Your task to perform on an android device: toggle pop-ups in chrome Image 0: 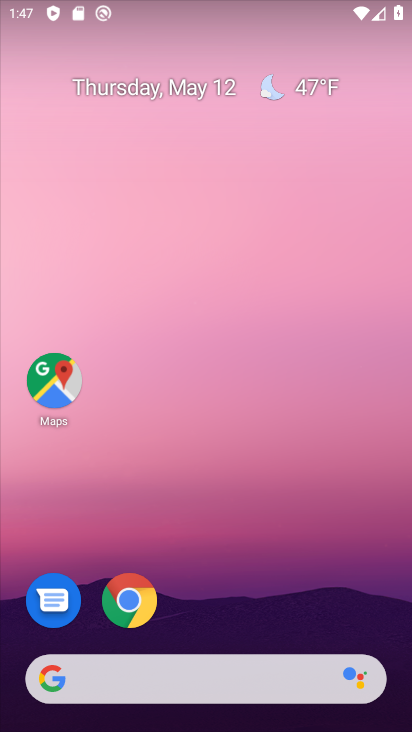
Step 0: click (142, 603)
Your task to perform on an android device: toggle pop-ups in chrome Image 1: 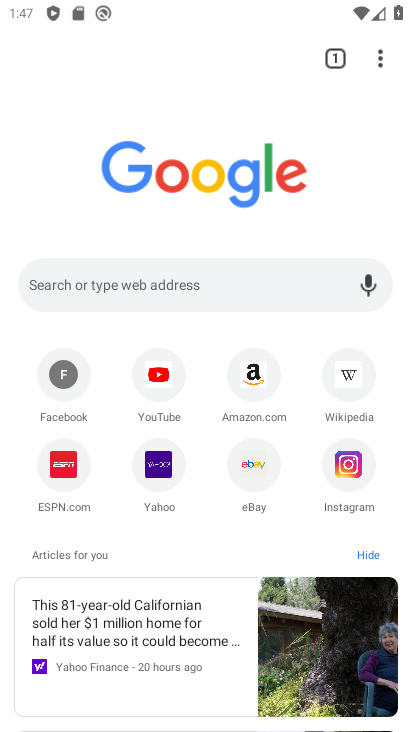
Step 1: click (381, 63)
Your task to perform on an android device: toggle pop-ups in chrome Image 2: 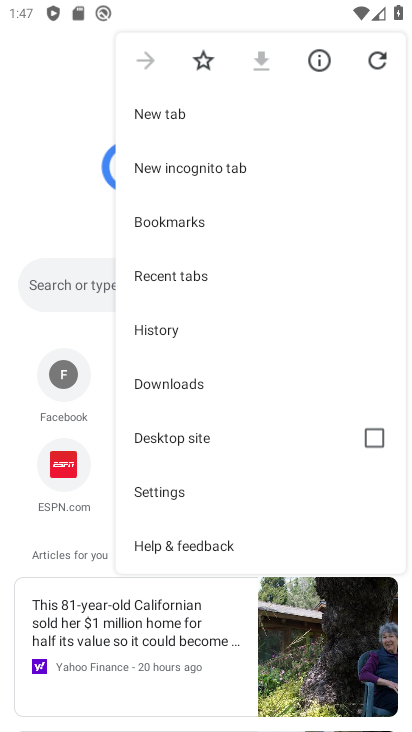
Step 2: click (164, 491)
Your task to perform on an android device: toggle pop-ups in chrome Image 3: 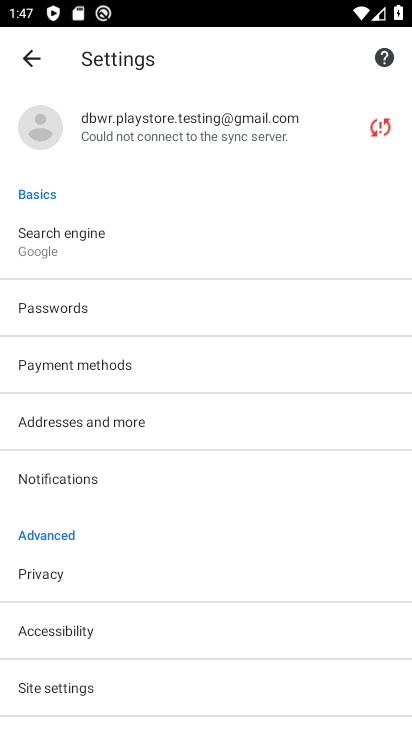
Step 3: drag from (125, 645) to (154, 283)
Your task to perform on an android device: toggle pop-ups in chrome Image 4: 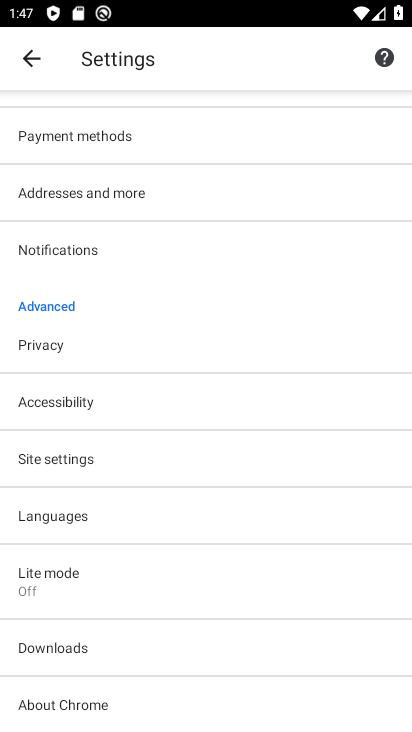
Step 4: click (108, 456)
Your task to perform on an android device: toggle pop-ups in chrome Image 5: 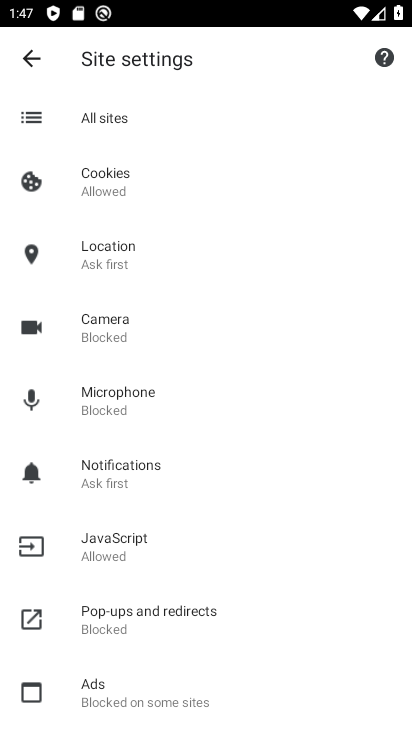
Step 5: click (150, 620)
Your task to perform on an android device: toggle pop-ups in chrome Image 6: 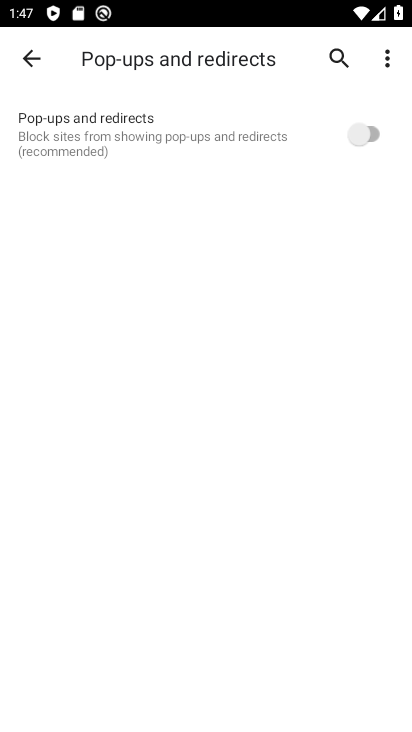
Step 6: click (366, 125)
Your task to perform on an android device: toggle pop-ups in chrome Image 7: 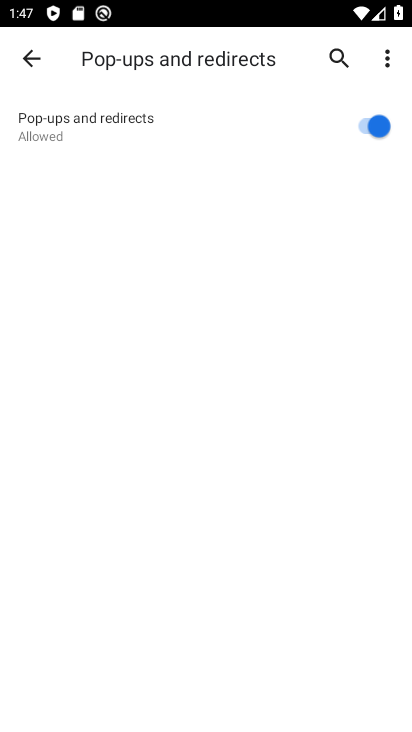
Step 7: task complete